Your task to perform on an android device: turn on translation in the chrome app Image 0: 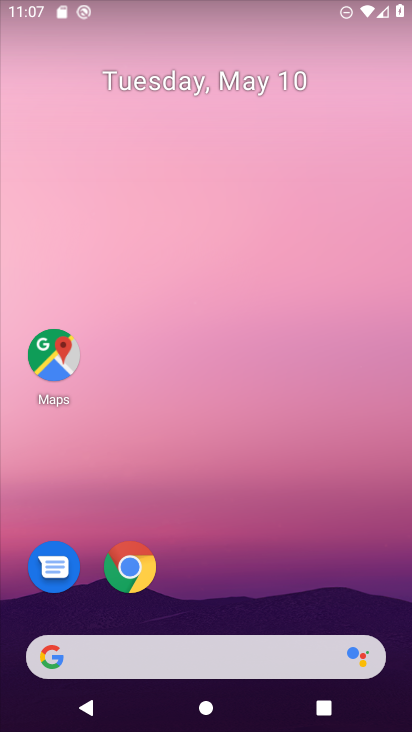
Step 0: click (116, 578)
Your task to perform on an android device: turn on translation in the chrome app Image 1: 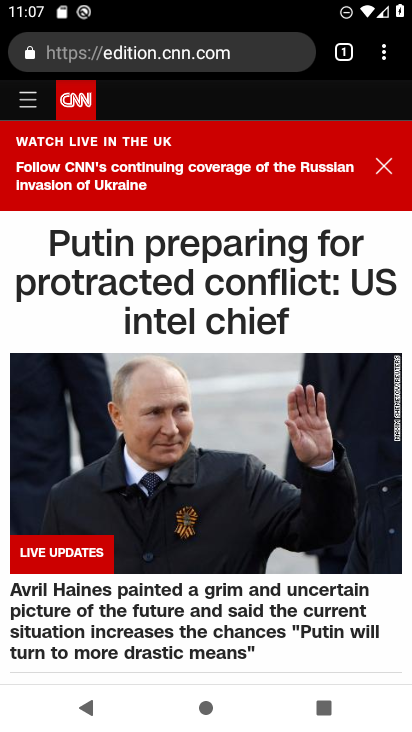
Step 1: drag from (385, 53) to (249, 582)
Your task to perform on an android device: turn on translation in the chrome app Image 2: 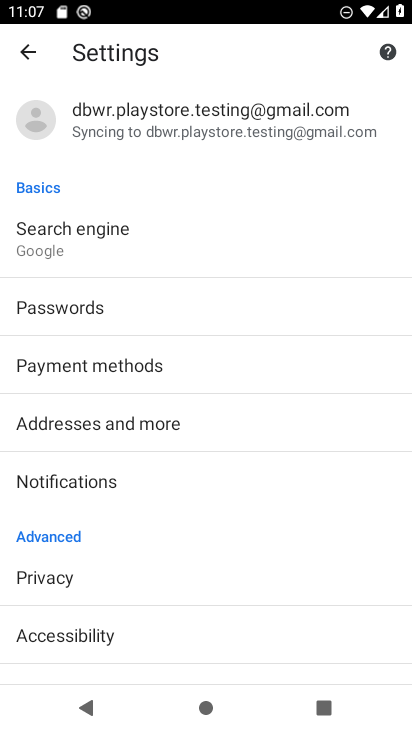
Step 2: drag from (150, 627) to (138, 385)
Your task to perform on an android device: turn on translation in the chrome app Image 3: 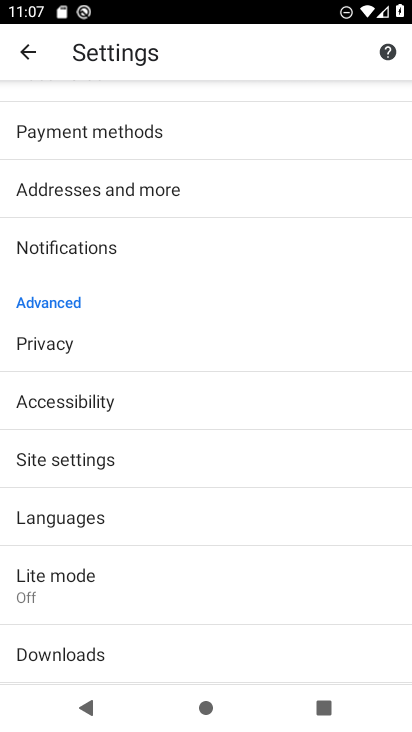
Step 3: click (57, 516)
Your task to perform on an android device: turn on translation in the chrome app Image 4: 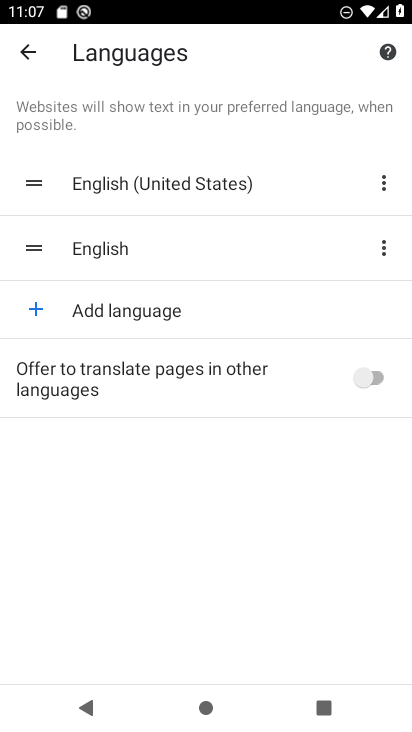
Step 4: click (377, 374)
Your task to perform on an android device: turn on translation in the chrome app Image 5: 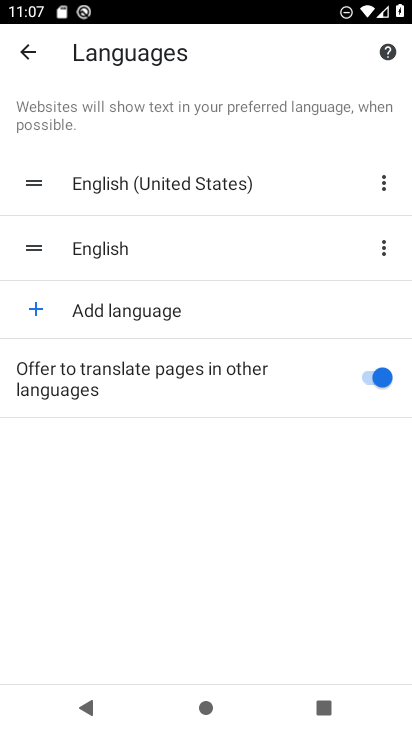
Step 5: task complete